Your task to perform on an android device: toggle priority inbox in the gmail app Image 0: 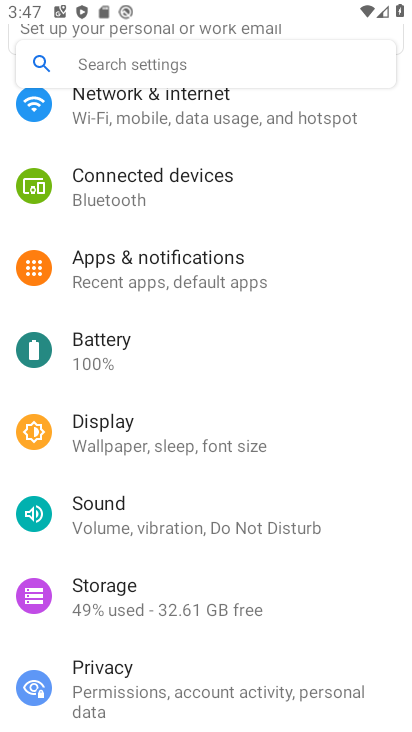
Step 0: drag from (117, 144) to (199, 71)
Your task to perform on an android device: toggle priority inbox in the gmail app Image 1: 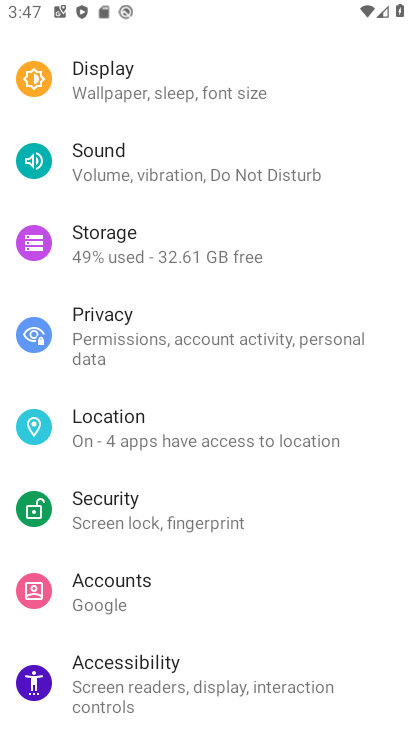
Step 1: drag from (238, 528) to (197, 142)
Your task to perform on an android device: toggle priority inbox in the gmail app Image 2: 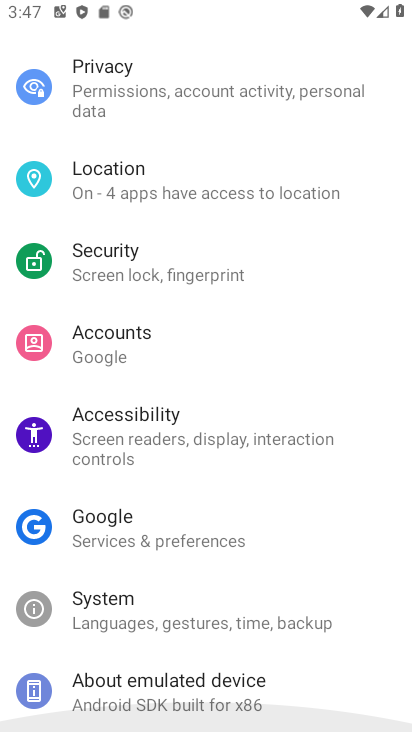
Step 2: drag from (244, 519) to (213, 91)
Your task to perform on an android device: toggle priority inbox in the gmail app Image 3: 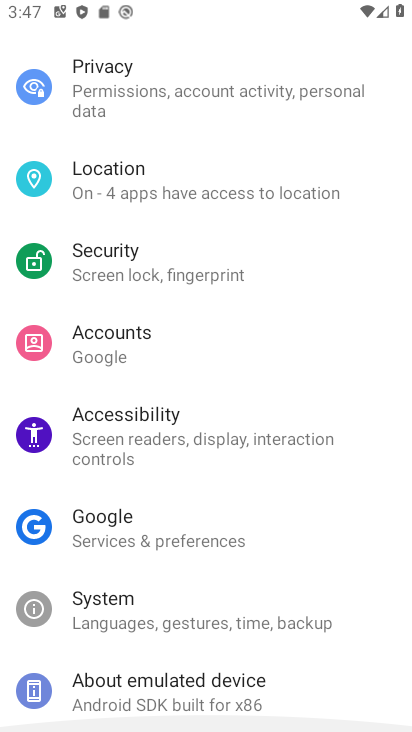
Step 3: drag from (260, 449) to (146, 30)
Your task to perform on an android device: toggle priority inbox in the gmail app Image 4: 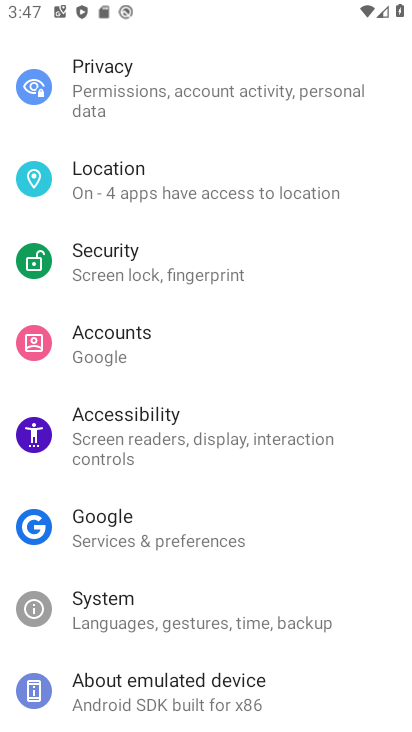
Step 4: drag from (136, 512) to (101, 184)
Your task to perform on an android device: toggle priority inbox in the gmail app Image 5: 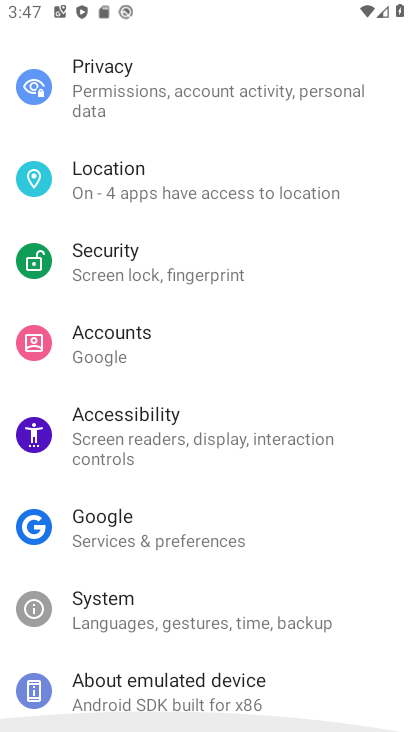
Step 5: drag from (162, 481) to (115, 188)
Your task to perform on an android device: toggle priority inbox in the gmail app Image 6: 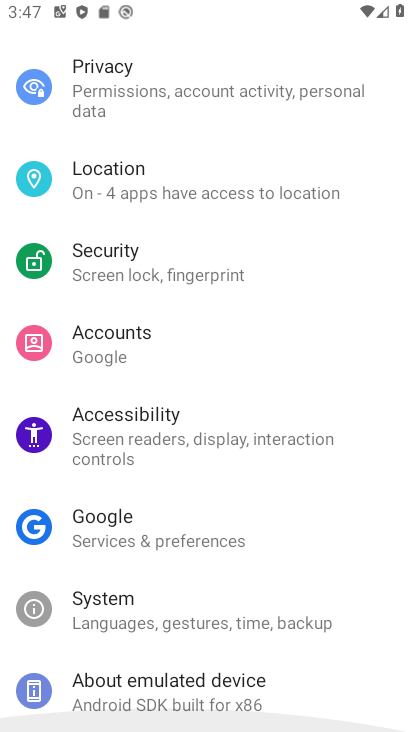
Step 6: drag from (231, 584) to (175, 175)
Your task to perform on an android device: toggle priority inbox in the gmail app Image 7: 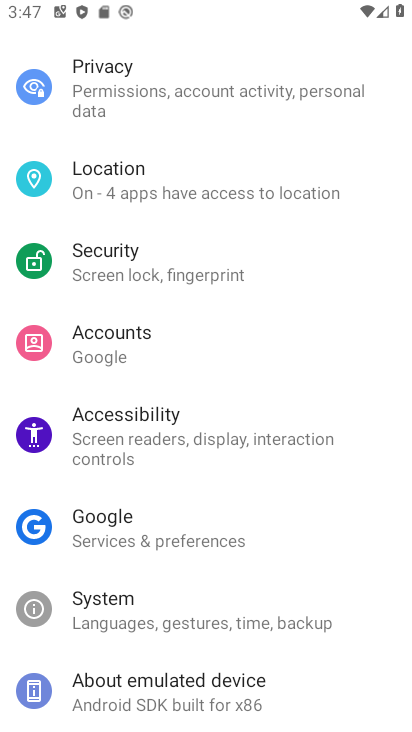
Step 7: press home button
Your task to perform on an android device: toggle priority inbox in the gmail app Image 8: 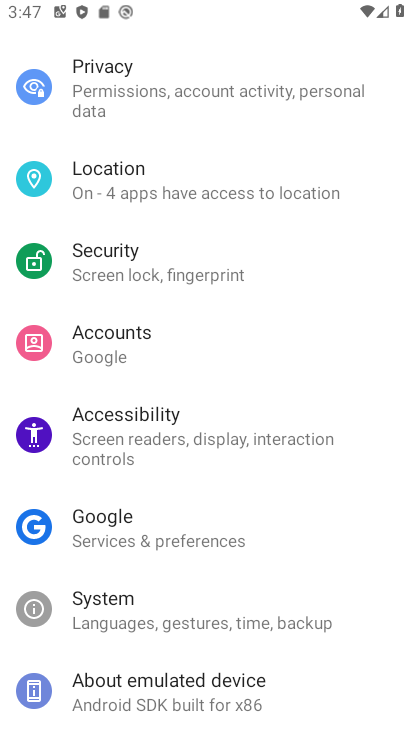
Step 8: press home button
Your task to perform on an android device: toggle priority inbox in the gmail app Image 9: 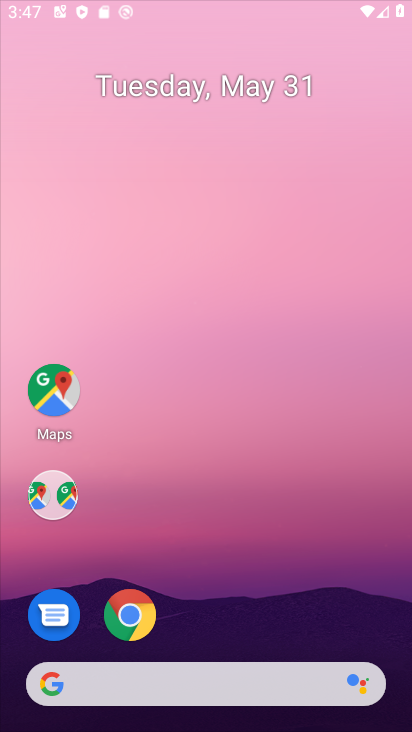
Step 9: press home button
Your task to perform on an android device: toggle priority inbox in the gmail app Image 10: 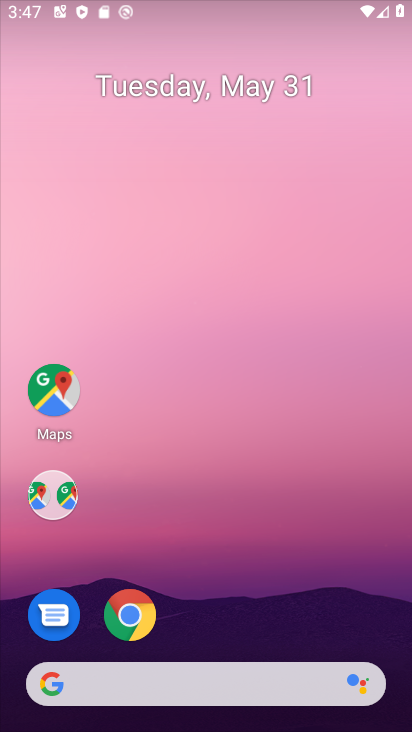
Step 10: press home button
Your task to perform on an android device: toggle priority inbox in the gmail app Image 11: 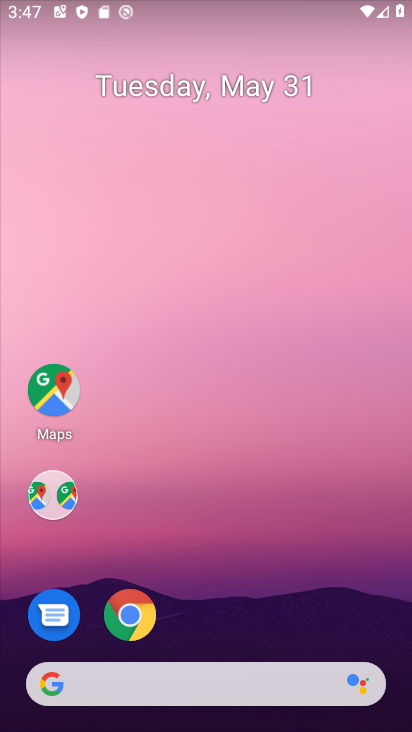
Step 11: drag from (265, 694) to (176, 38)
Your task to perform on an android device: toggle priority inbox in the gmail app Image 12: 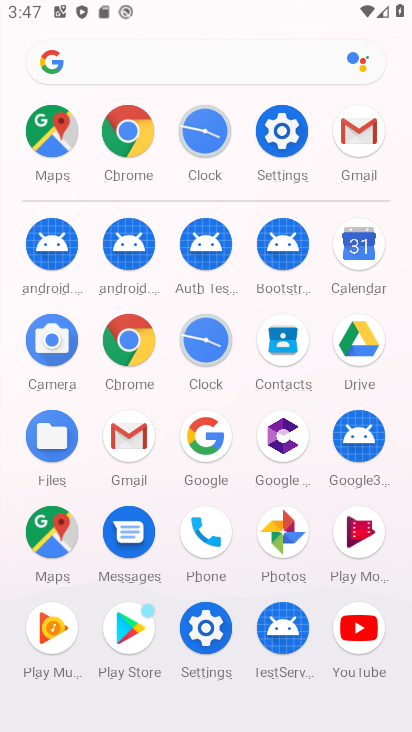
Step 12: drag from (246, 560) to (158, 108)
Your task to perform on an android device: toggle priority inbox in the gmail app Image 13: 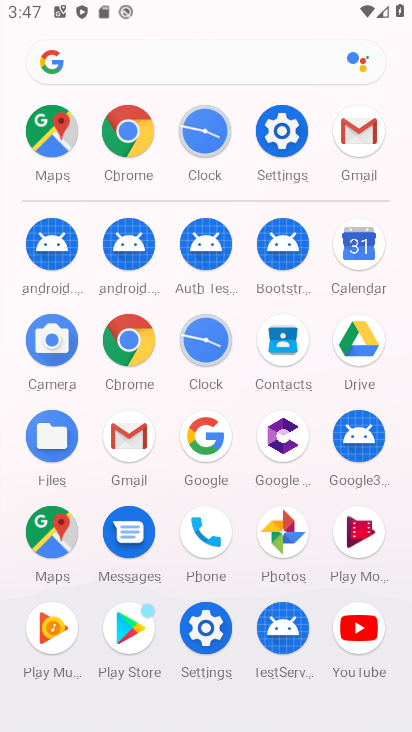
Step 13: click (129, 440)
Your task to perform on an android device: toggle priority inbox in the gmail app Image 14: 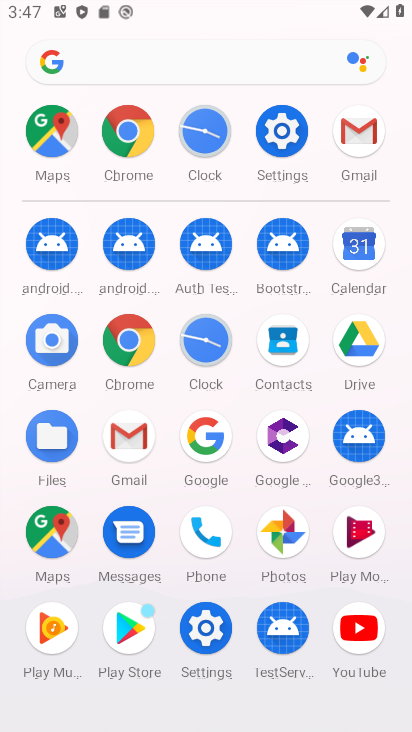
Step 14: click (131, 437)
Your task to perform on an android device: toggle priority inbox in the gmail app Image 15: 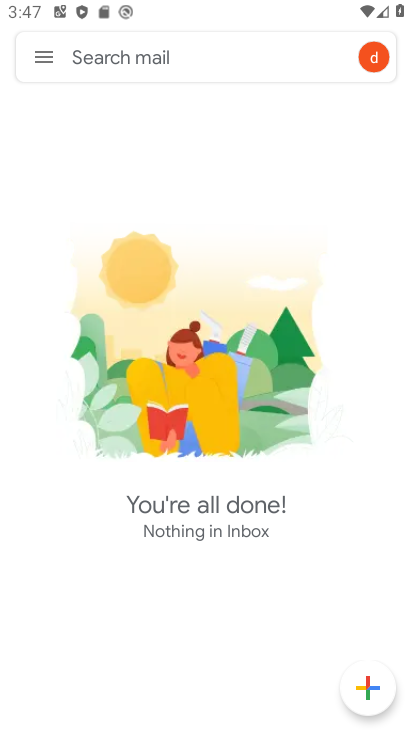
Step 15: drag from (39, 57) to (95, 423)
Your task to perform on an android device: toggle priority inbox in the gmail app Image 16: 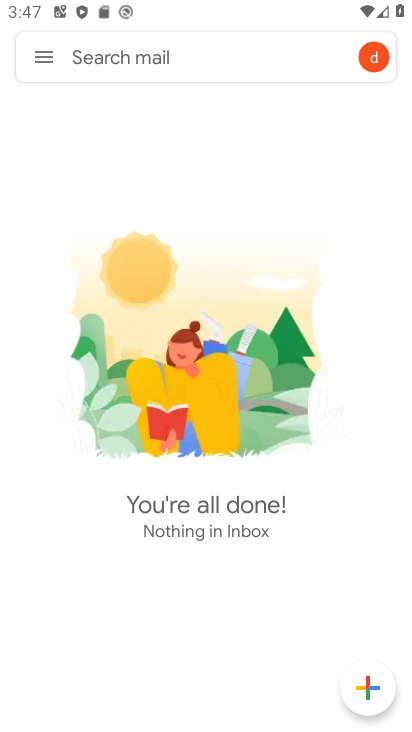
Step 16: click (42, 54)
Your task to perform on an android device: toggle priority inbox in the gmail app Image 17: 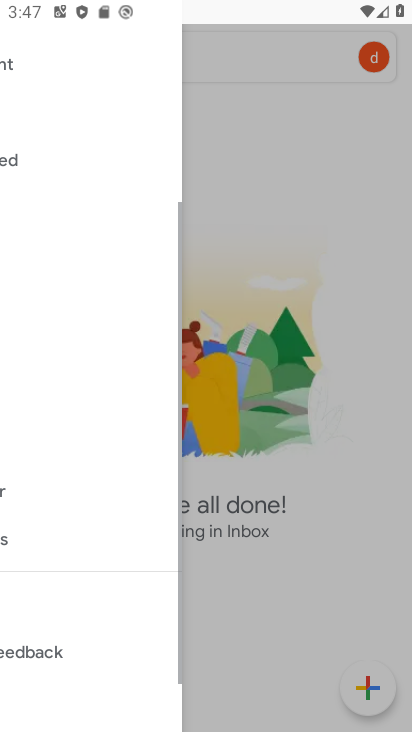
Step 17: click (42, 62)
Your task to perform on an android device: toggle priority inbox in the gmail app Image 18: 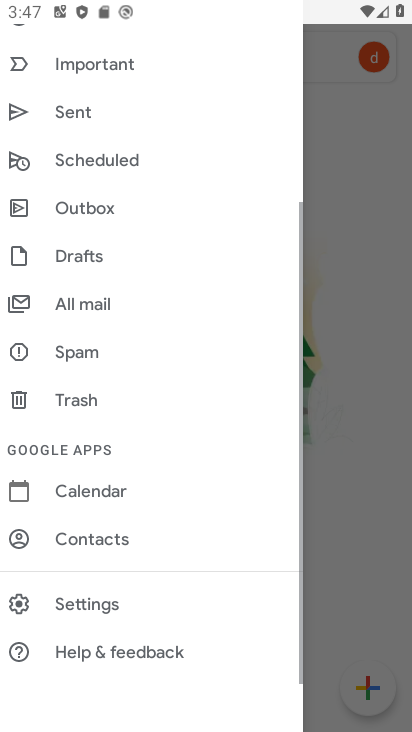
Step 18: click (42, 61)
Your task to perform on an android device: toggle priority inbox in the gmail app Image 19: 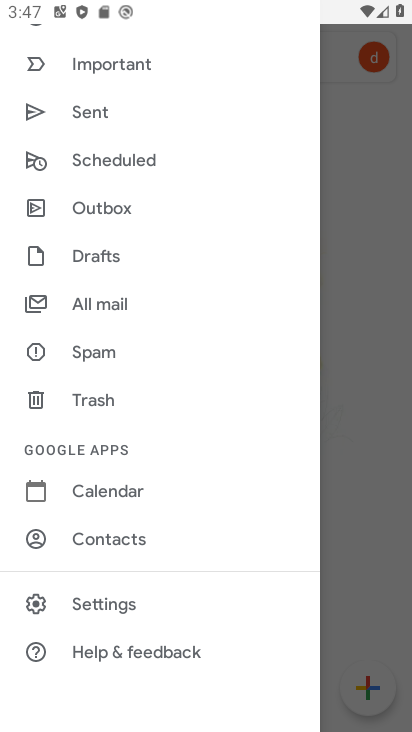
Step 19: click (104, 602)
Your task to perform on an android device: toggle priority inbox in the gmail app Image 20: 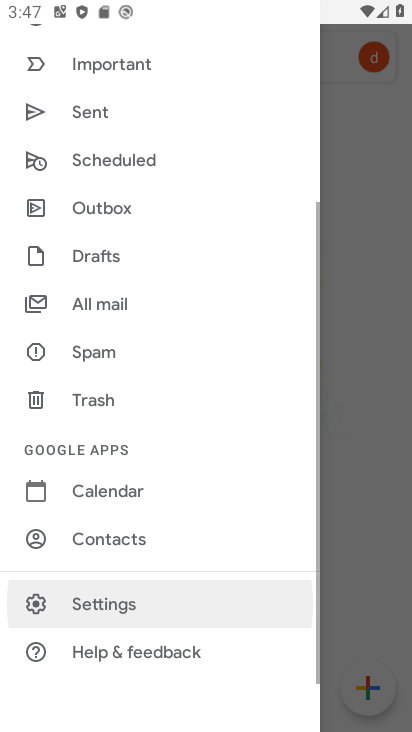
Step 20: click (104, 602)
Your task to perform on an android device: toggle priority inbox in the gmail app Image 21: 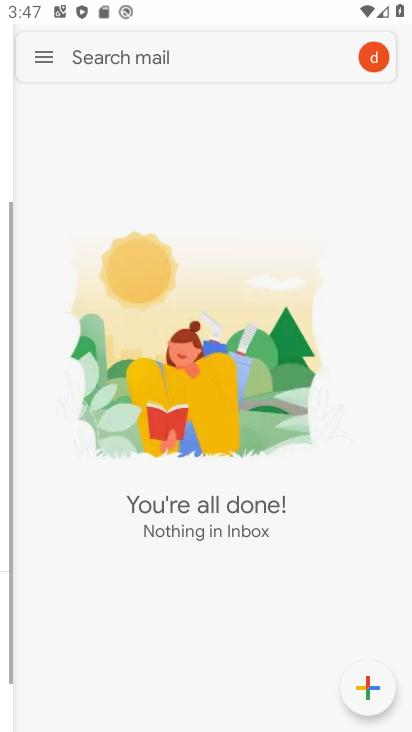
Step 21: click (104, 602)
Your task to perform on an android device: toggle priority inbox in the gmail app Image 22: 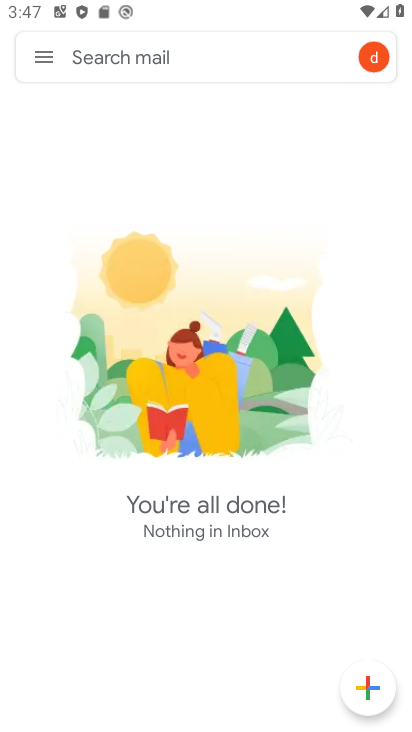
Step 22: click (105, 601)
Your task to perform on an android device: toggle priority inbox in the gmail app Image 23: 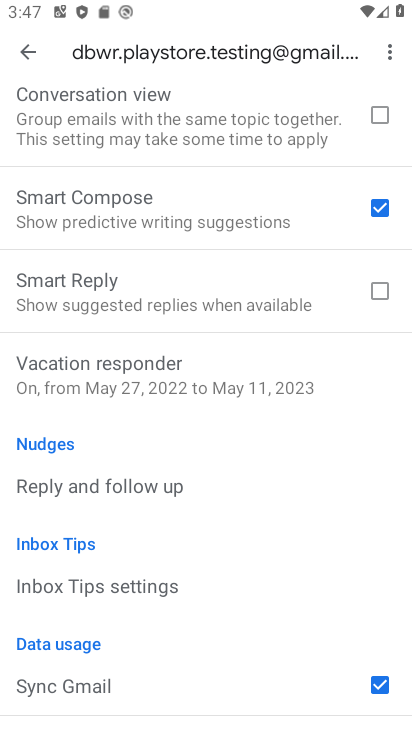
Step 23: task complete